Your task to perform on an android device: Go to network settings Image 0: 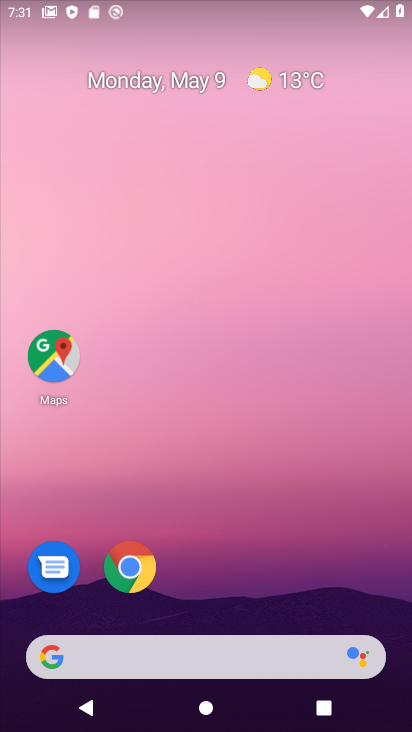
Step 0: drag from (275, 542) to (327, 50)
Your task to perform on an android device: Go to network settings Image 1: 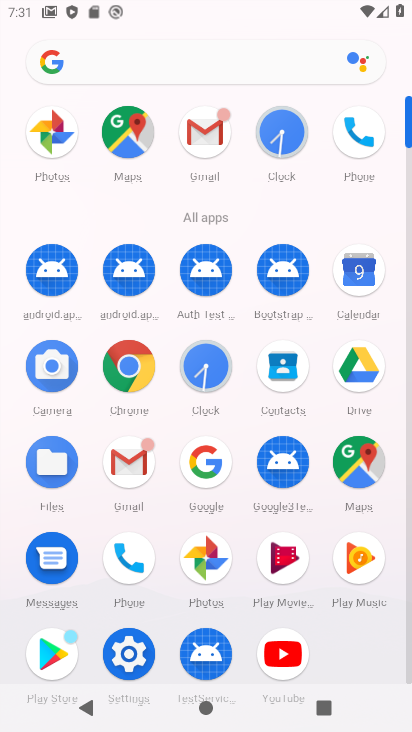
Step 1: click (133, 643)
Your task to perform on an android device: Go to network settings Image 2: 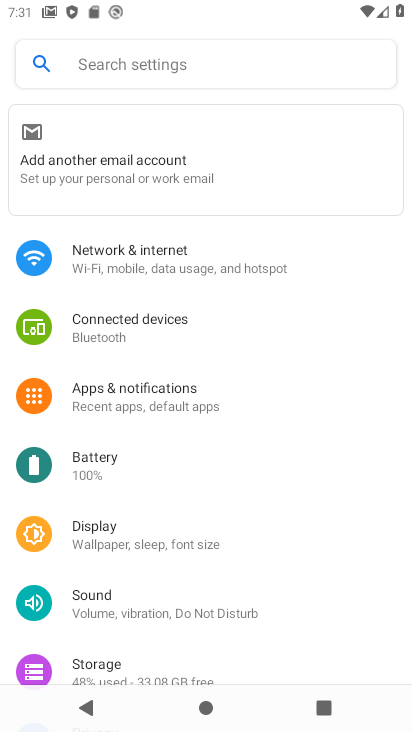
Step 2: click (190, 263)
Your task to perform on an android device: Go to network settings Image 3: 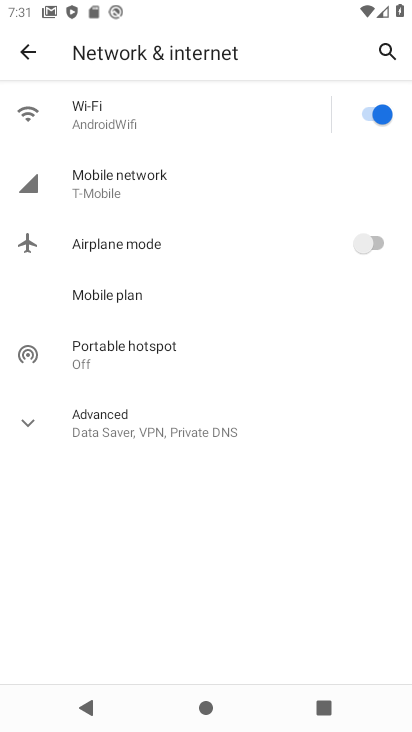
Step 3: task complete